Your task to perform on an android device: allow notifications from all sites in the chrome app Image 0: 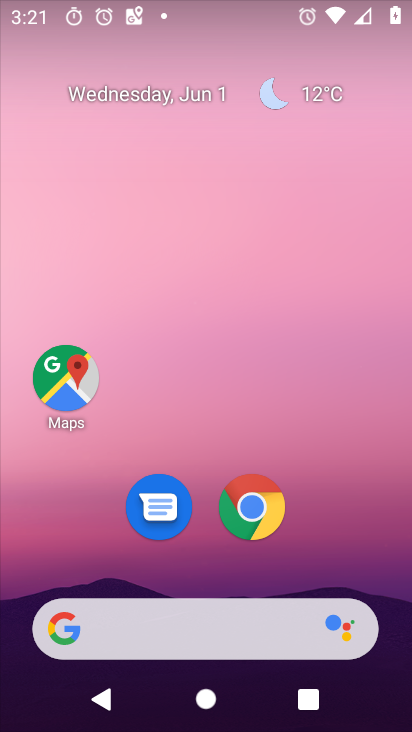
Step 0: click (264, 506)
Your task to perform on an android device: allow notifications from all sites in the chrome app Image 1: 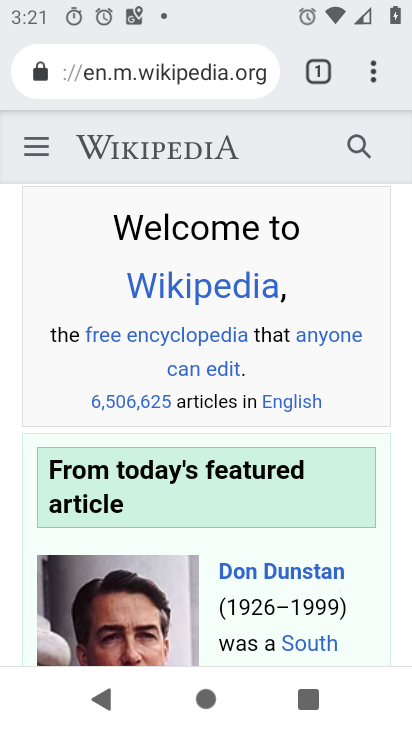
Step 1: drag from (372, 74) to (153, 513)
Your task to perform on an android device: allow notifications from all sites in the chrome app Image 2: 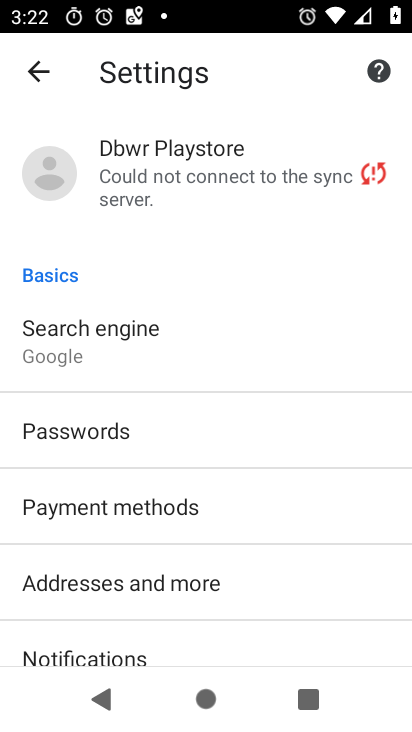
Step 2: drag from (251, 573) to (252, 226)
Your task to perform on an android device: allow notifications from all sites in the chrome app Image 3: 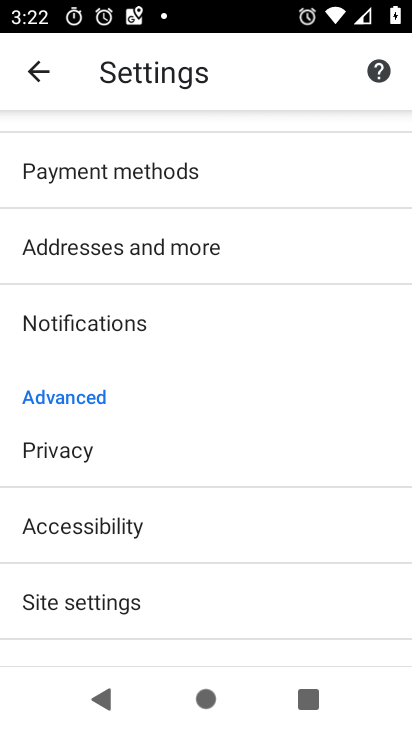
Step 3: drag from (203, 558) to (228, 280)
Your task to perform on an android device: allow notifications from all sites in the chrome app Image 4: 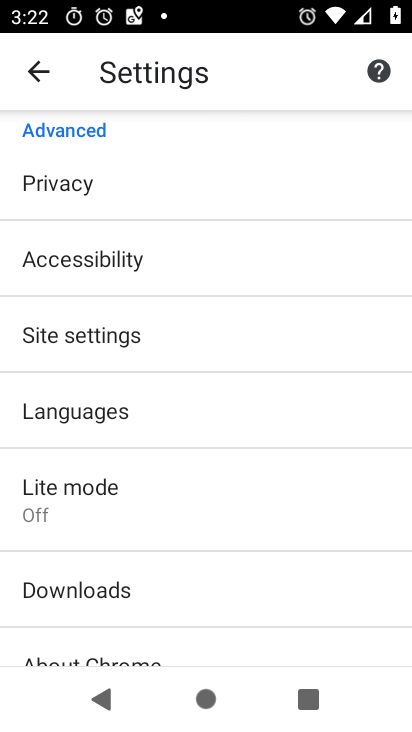
Step 4: click (88, 345)
Your task to perform on an android device: allow notifications from all sites in the chrome app Image 5: 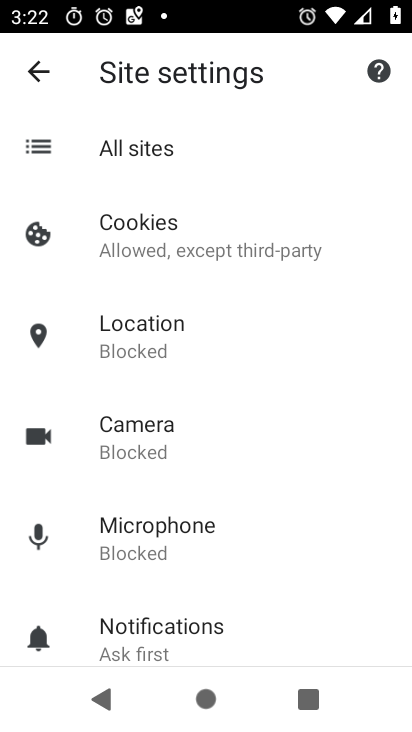
Step 5: drag from (227, 546) to (229, 313)
Your task to perform on an android device: allow notifications from all sites in the chrome app Image 6: 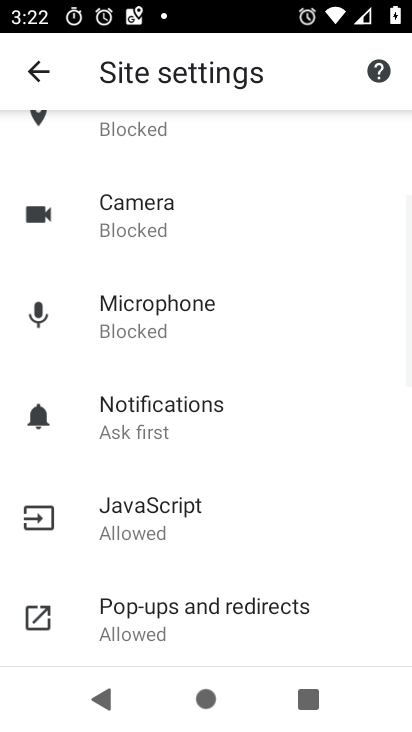
Step 6: click (184, 406)
Your task to perform on an android device: allow notifications from all sites in the chrome app Image 7: 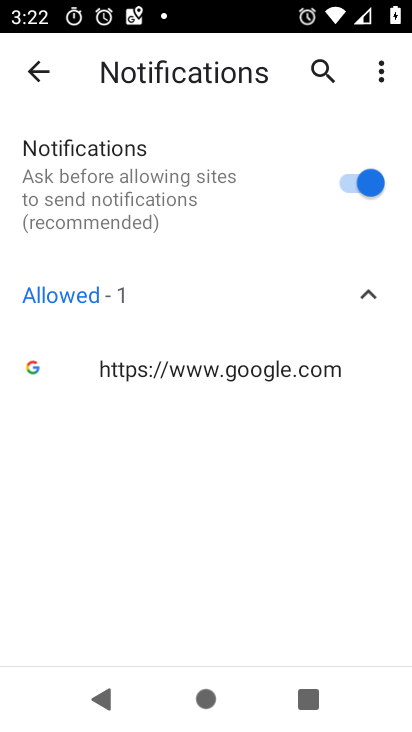
Step 7: task complete